Your task to perform on an android device: add a label to a message in the gmail app Image 0: 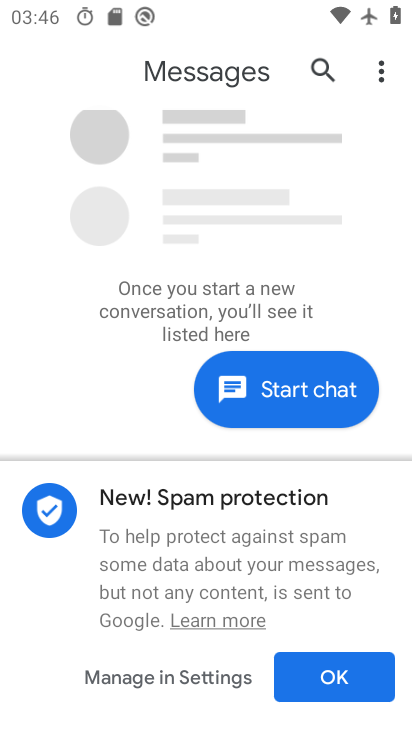
Step 0: press home button
Your task to perform on an android device: add a label to a message in the gmail app Image 1: 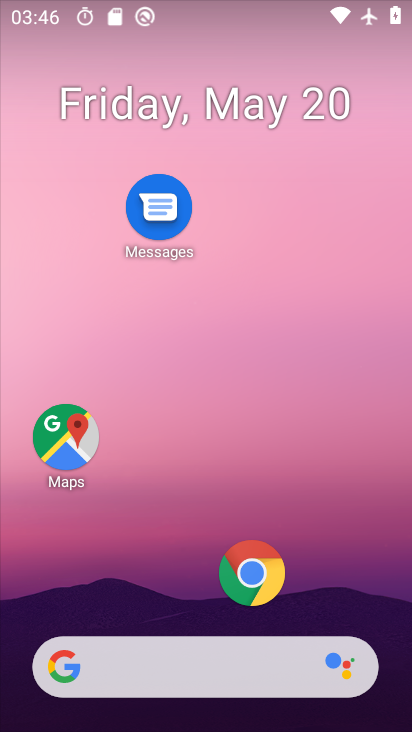
Step 1: drag from (202, 615) to (244, 198)
Your task to perform on an android device: add a label to a message in the gmail app Image 2: 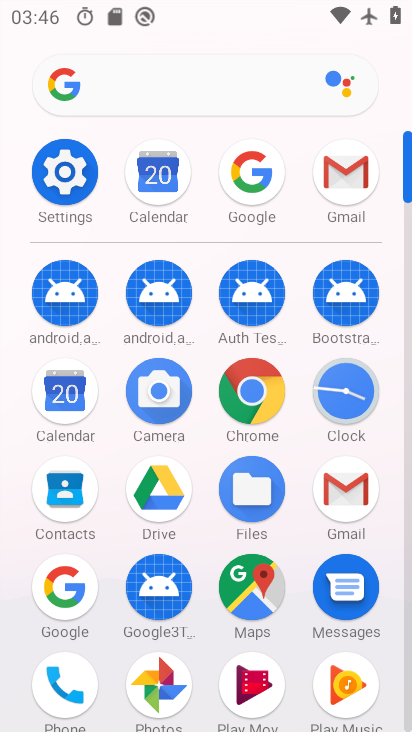
Step 2: click (317, 191)
Your task to perform on an android device: add a label to a message in the gmail app Image 3: 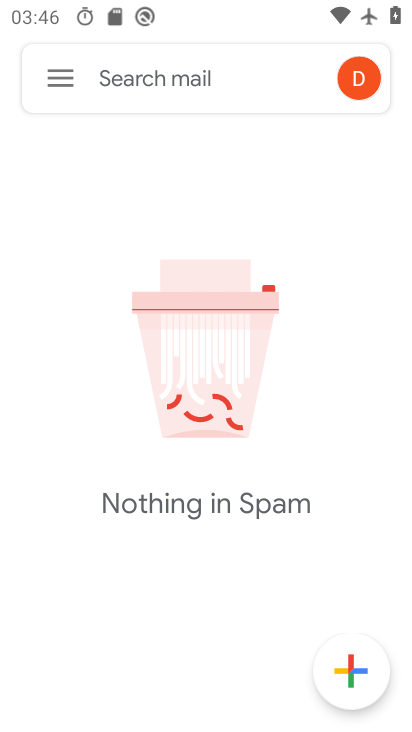
Step 3: click (57, 73)
Your task to perform on an android device: add a label to a message in the gmail app Image 4: 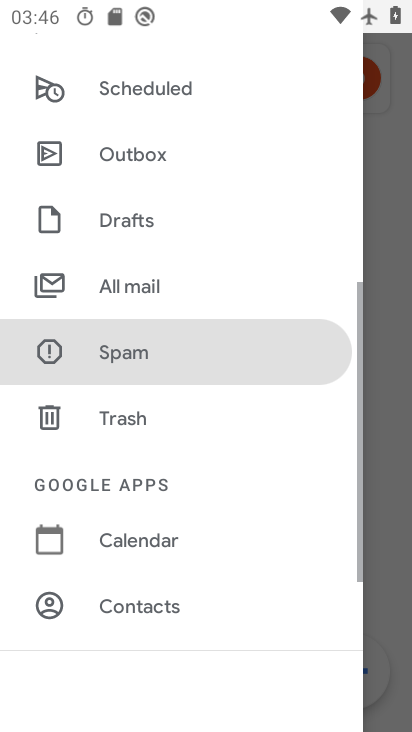
Step 4: click (128, 300)
Your task to perform on an android device: add a label to a message in the gmail app Image 5: 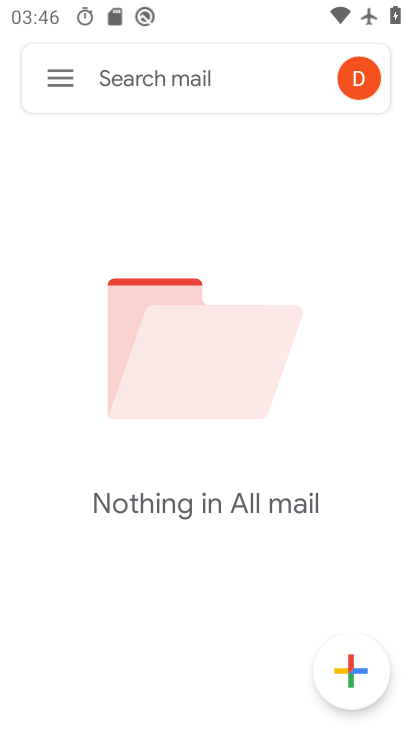
Step 5: task complete